Your task to perform on an android device: move an email to a new category in the gmail app Image 0: 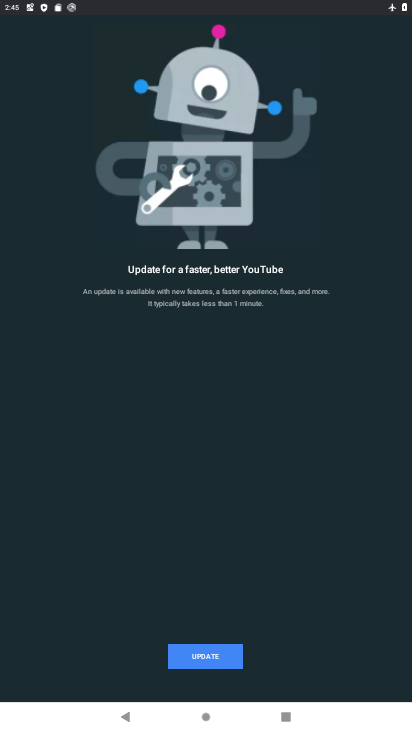
Step 0: press home button
Your task to perform on an android device: move an email to a new category in the gmail app Image 1: 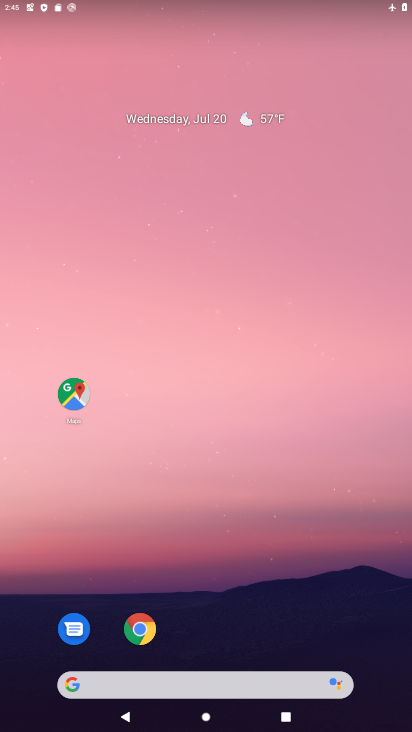
Step 1: drag from (194, 639) to (185, 194)
Your task to perform on an android device: move an email to a new category in the gmail app Image 2: 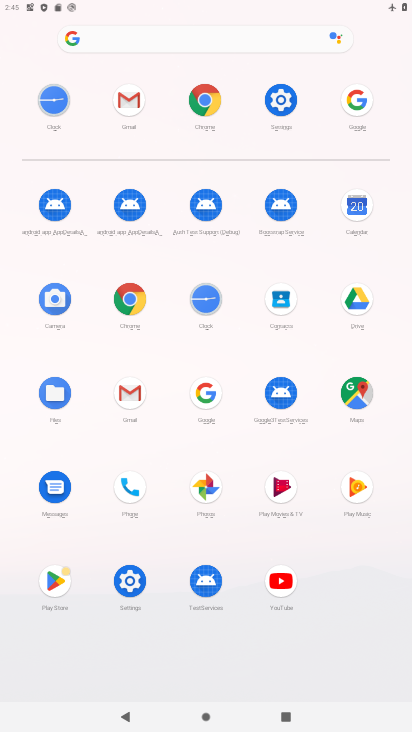
Step 2: click (146, 102)
Your task to perform on an android device: move an email to a new category in the gmail app Image 3: 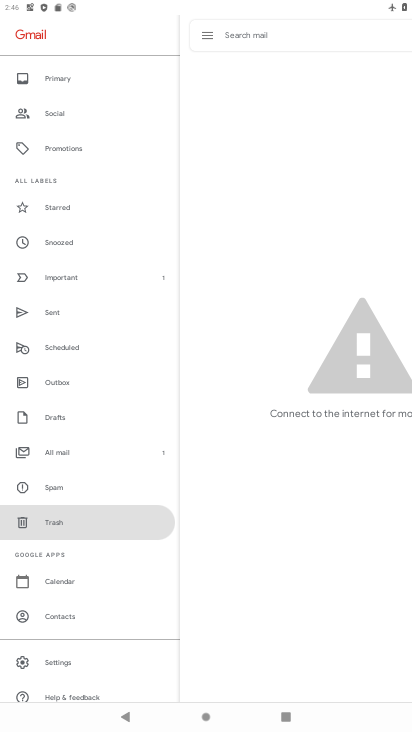
Step 3: click (73, 462)
Your task to perform on an android device: move an email to a new category in the gmail app Image 4: 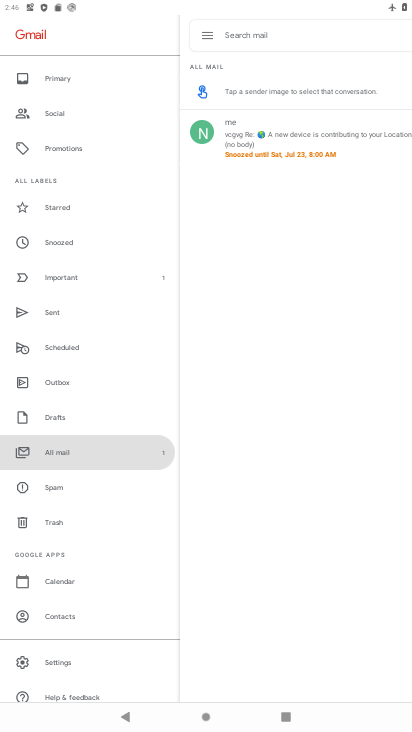
Step 4: click (314, 151)
Your task to perform on an android device: move an email to a new category in the gmail app Image 5: 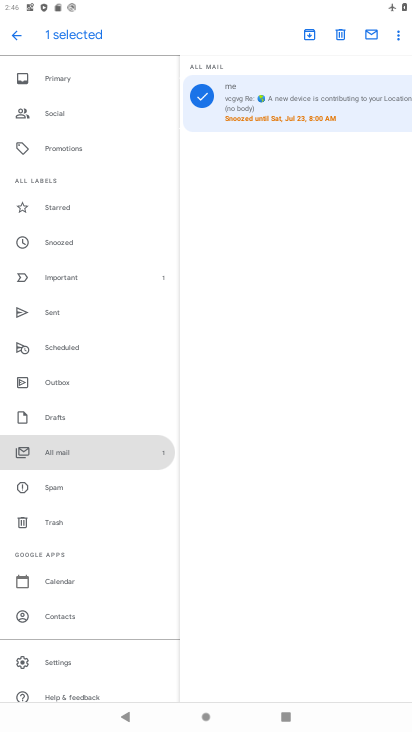
Step 5: click (397, 37)
Your task to perform on an android device: move an email to a new category in the gmail app Image 6: 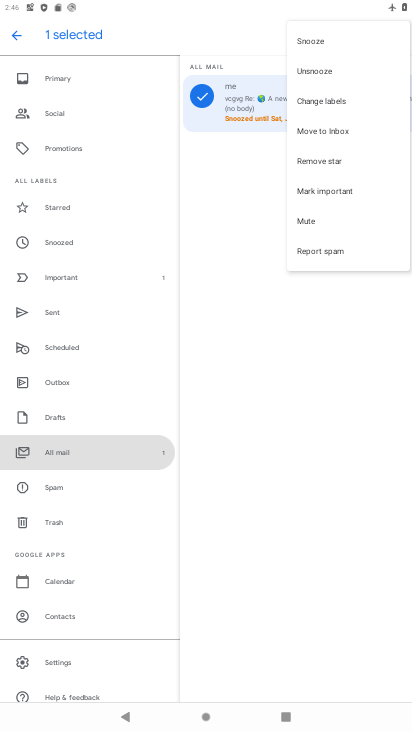
Step 6: click (335, 106)
Your task to perform on an android device: move an email to a new category in the gmail app Image 7: 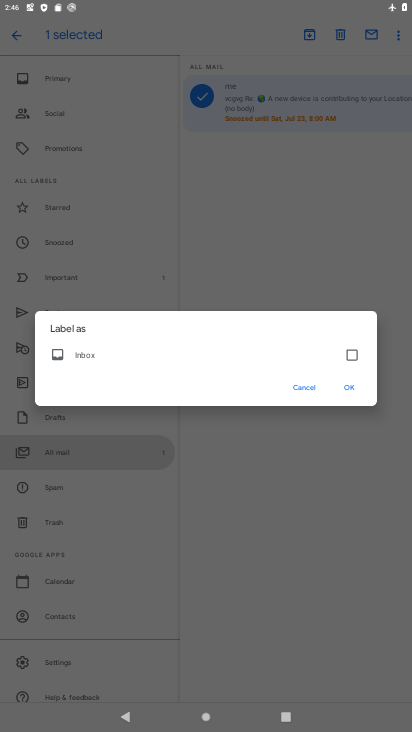
Step 7: click (143, 354)
Your task to perform on an android device: move an email to a new category in the gmail app Image 8: 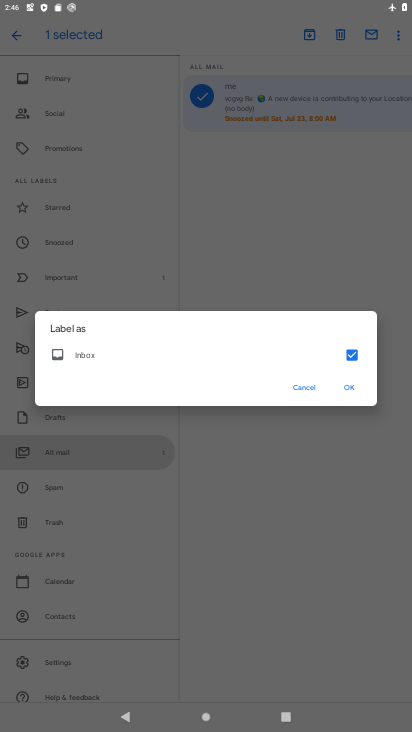
Step 8: click (347, 393)
Your task to perform on an android device: move an email to a new category in the gmail app Image 9: 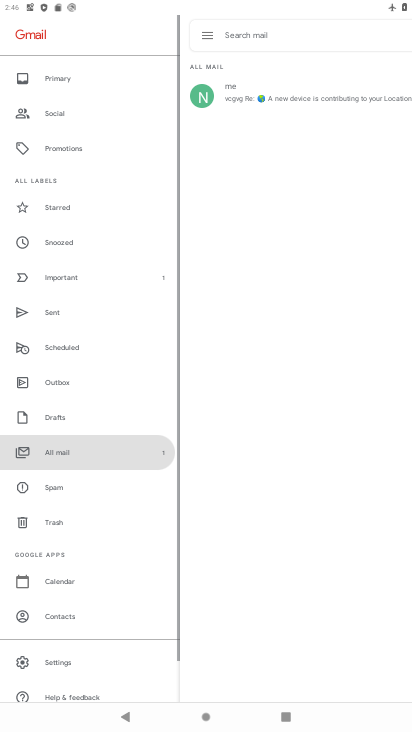
Step 9: task complete